Your task to perform on an android device: Go to display settings Image 0: 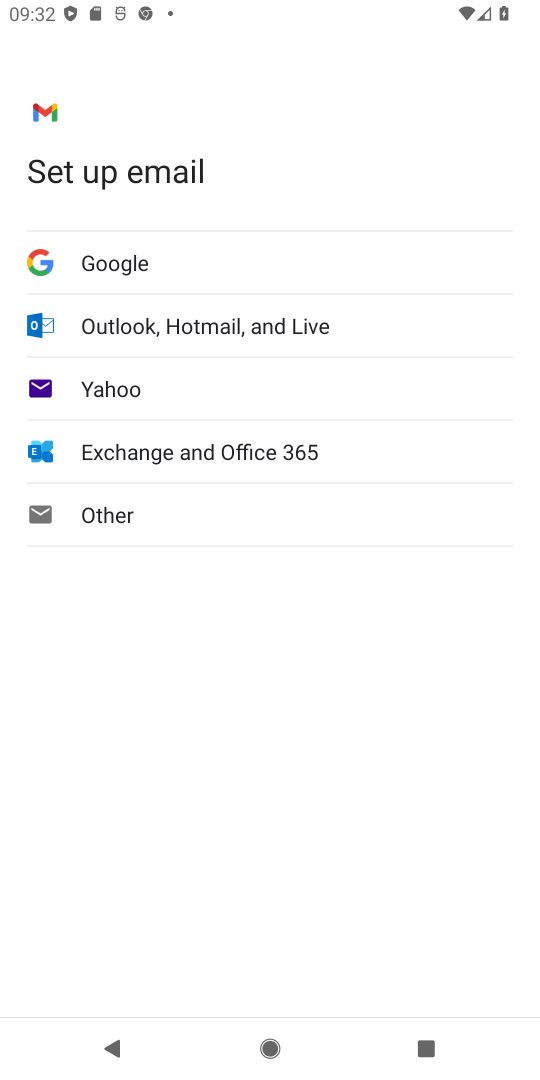
Step 0: press home button
Your task to perform on an android device: Go to display settings Image 1: 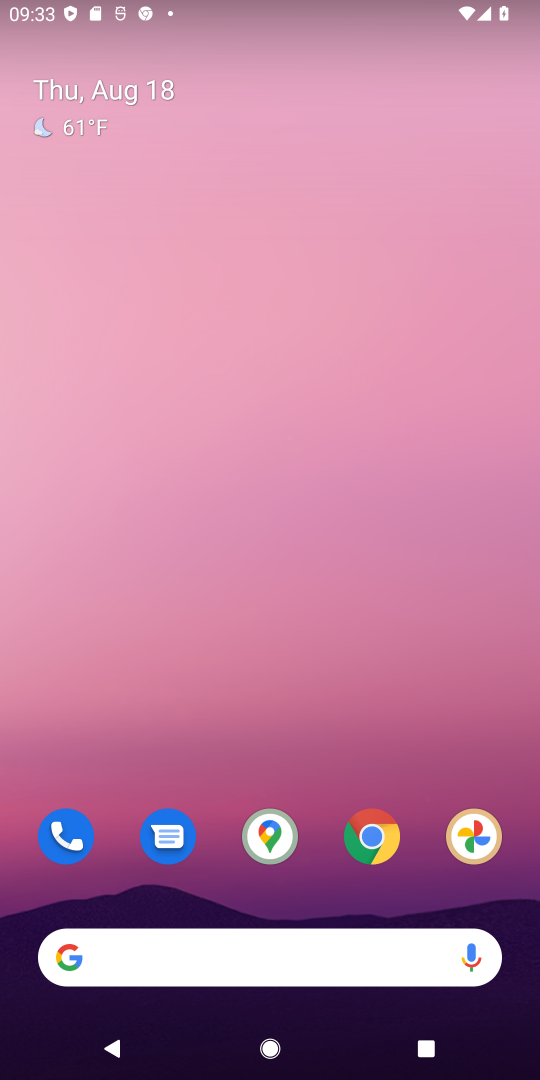
Step 1: drag from (352, 775) to (358, 102)
Your task to perform on an android device: Go to display settings Image 2: 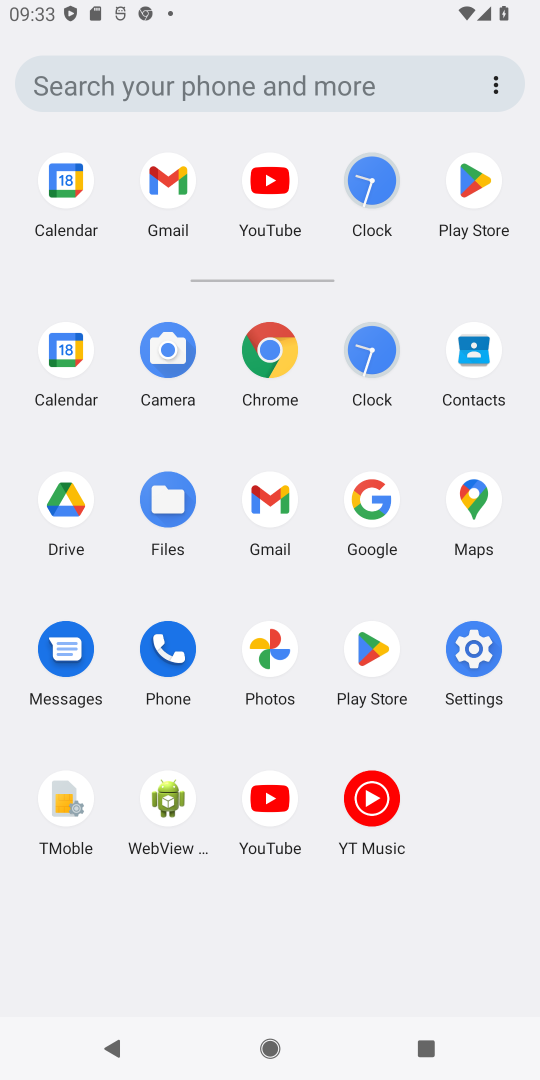
Step 2: click (474, 664)
Your task to perform on an android device: Go to display settings Image 3: 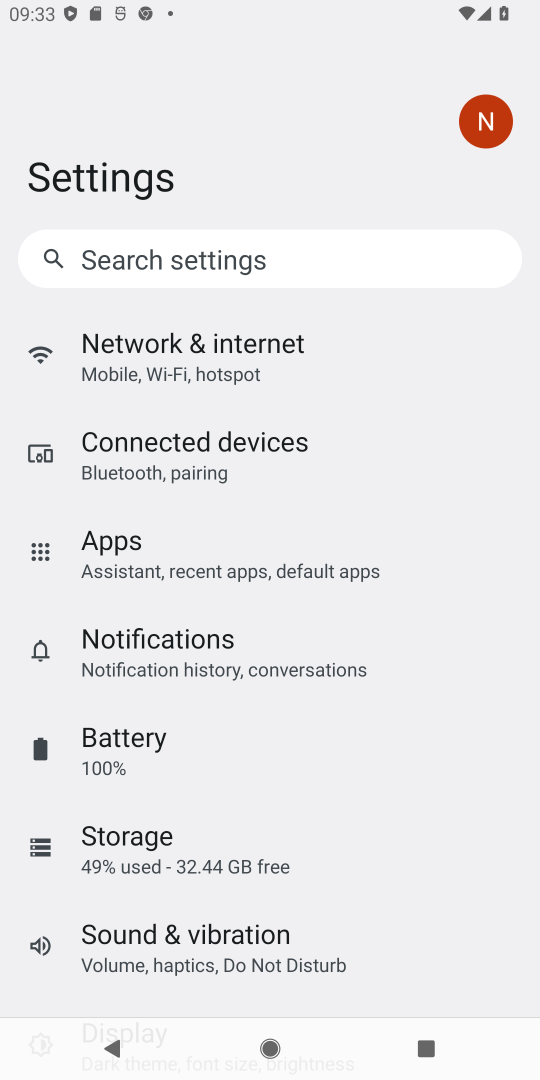
Step 3: drag from (325, 836) to (332, 452)
Your task to perform on an android device: Go to display settings Image 4: 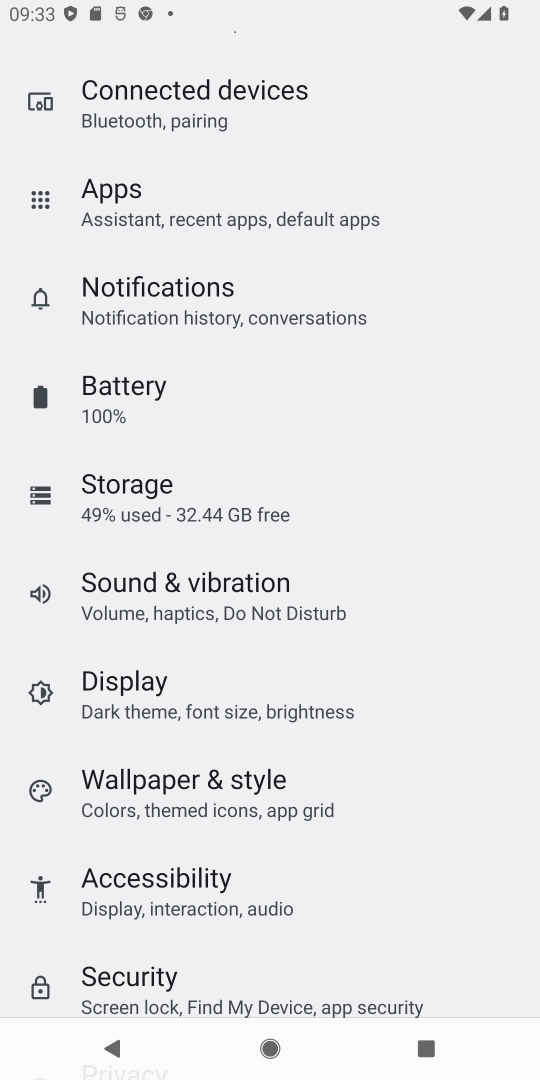
Step 4: click (242, 705)
Your task to perform on an android device: Go to display settings Image 5: 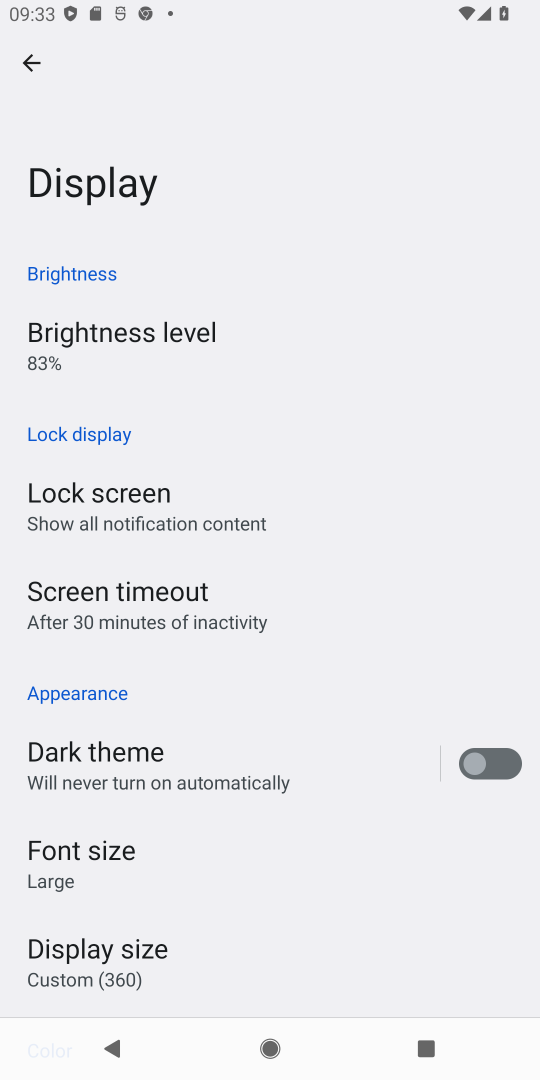
Step 5: task complete